Your task to perform on an android device: add a contact in the contacts app Image 0: 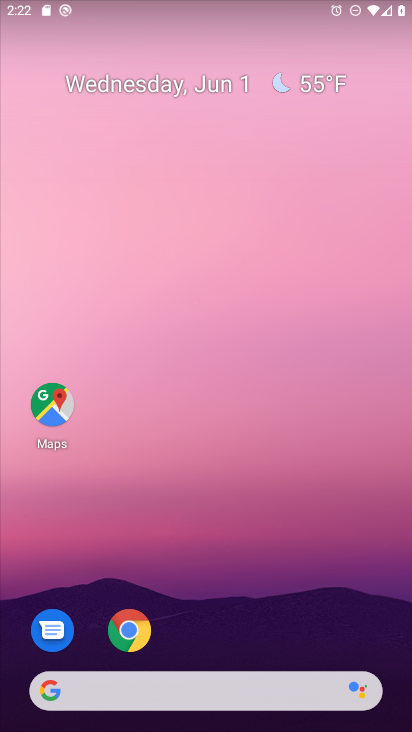
Step 0: drag from (311, 365) to (287, 49)
Your task to perform on an android device: add a contact in the contacts app Image 1: 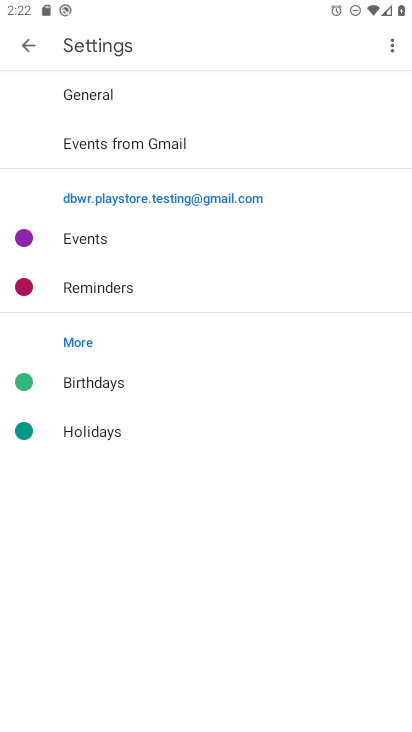
Step 1: press home button
Your task to perform on an android device: add a contact in the contacts app Image 2: 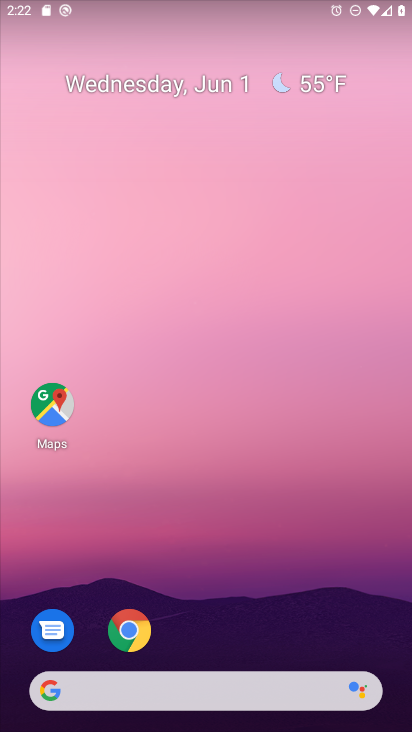
Step 2: drag from (306, 653) to (317, 118)
Your task to perform on an android device: add a contact in the contacts app Image 3: 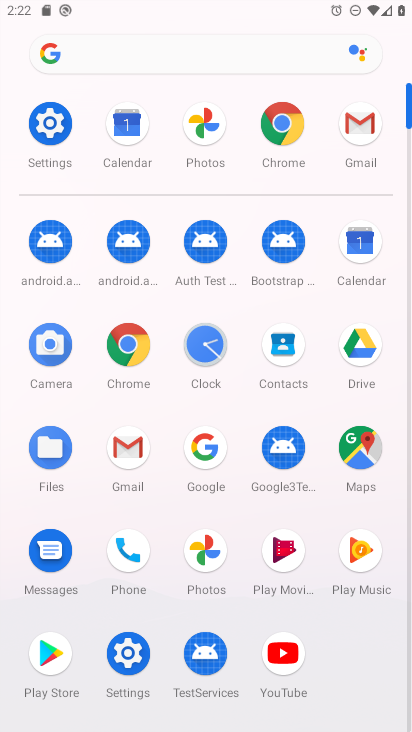
Step 3: click (277, 355)
Your task to perform on an android device: add a contact in the contacts app Image 4: 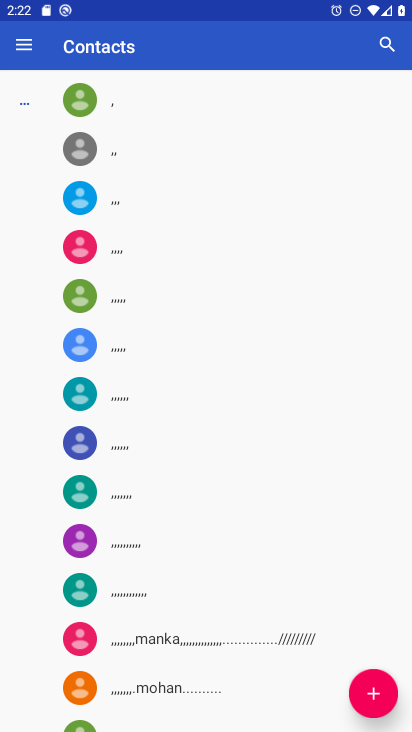
Step 4: click (378, 697)
Your task to perform on an android device: add a contact in the contacts app Image 5: 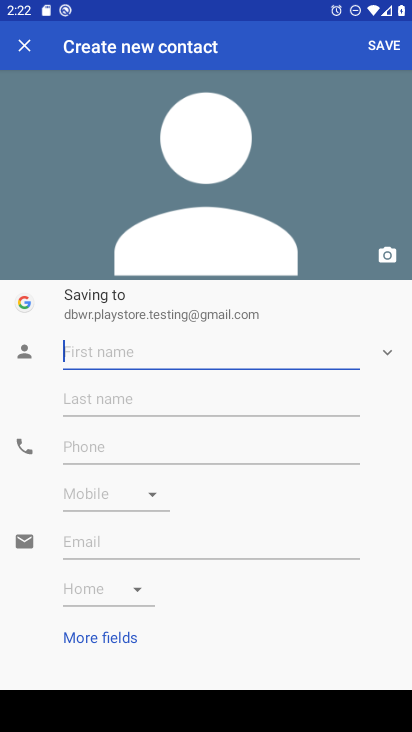
Step 5: type "hfjhjfddytd"
Your task to perform on an android device: add a contact in the contacts app Image 6: 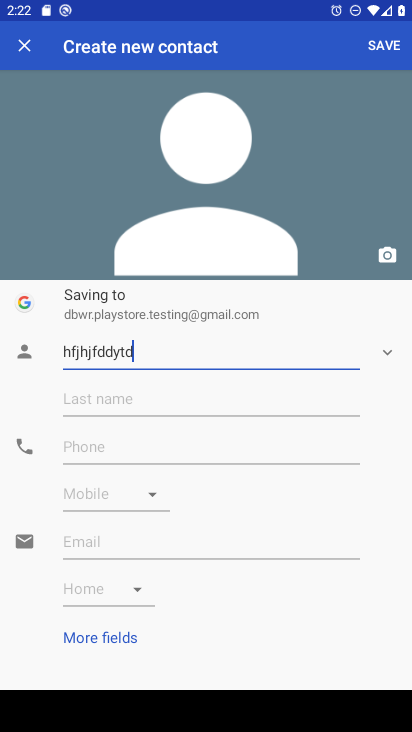
Step 6: click (231, 460)
Your task to perform on an android device: add a contact in the contacts app Image 7: 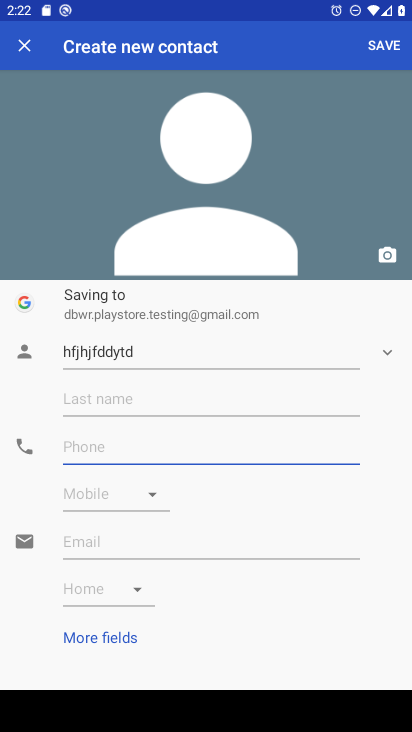
Step 7: type "987667788766"
Your task to perform on an android device: add a contact in the contacts app Image 8: 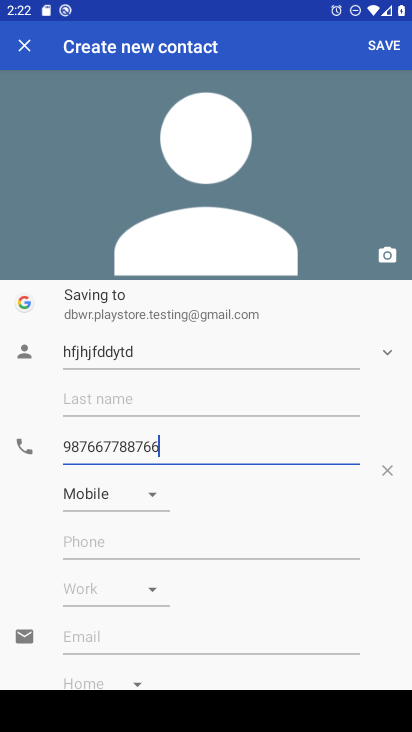
Step 8: click (388, 48)
Your task to perform on an android device: add a contact in the contacts app Image 9: 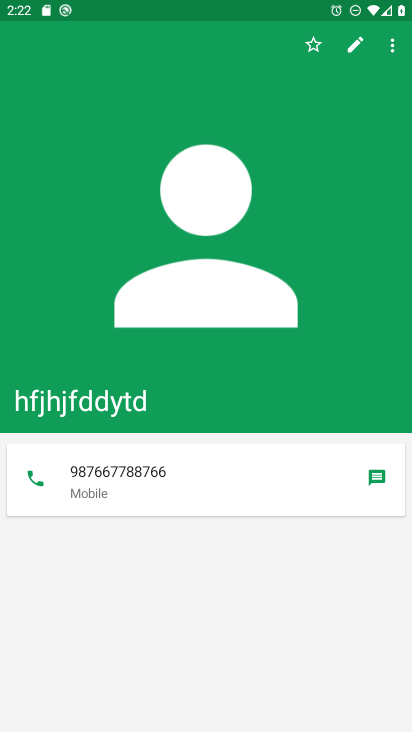
Step 9: task complete